Your task to perform on an android device: turn on wifi Image 0: 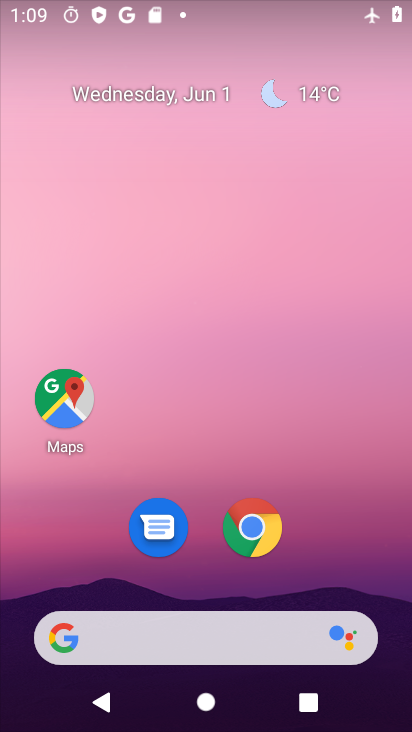
Step 0: drag from (206, 560) to (235, 121)
Your task to perform on an android device: turn on wifi Image 1: 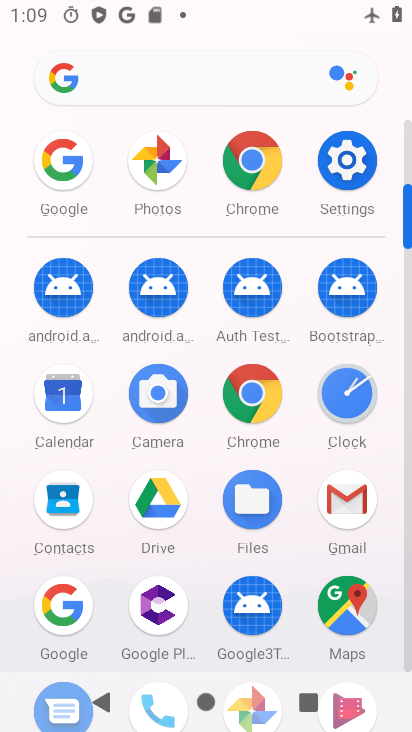
Step 1: click (340, 164)
Your task to perform on an android device: turn on wifi Image 2: 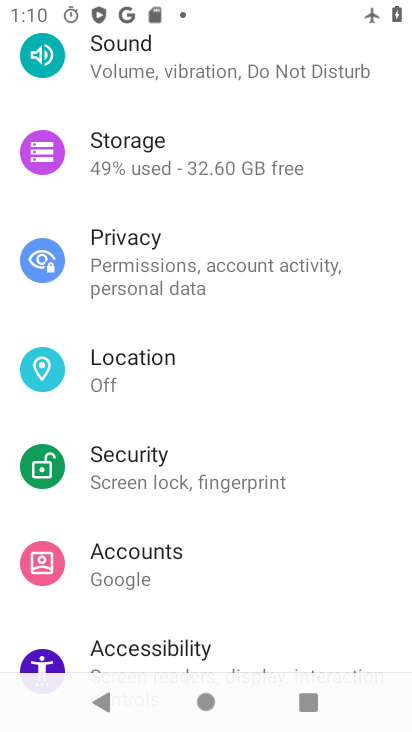
Step 2: drag from (116, 311) to (94, 597)
Your task to perform on an android device: turn on wifi Image 3: 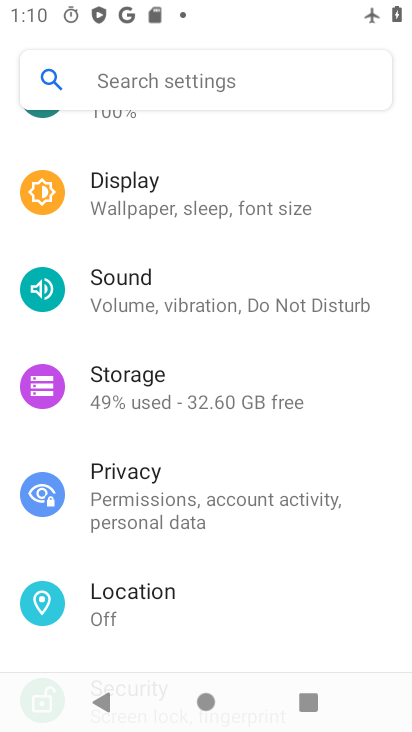
Step 3: drag from (155, 279) to (131, 571)
Your task to perform on an android device: turn on wifi Image 4: 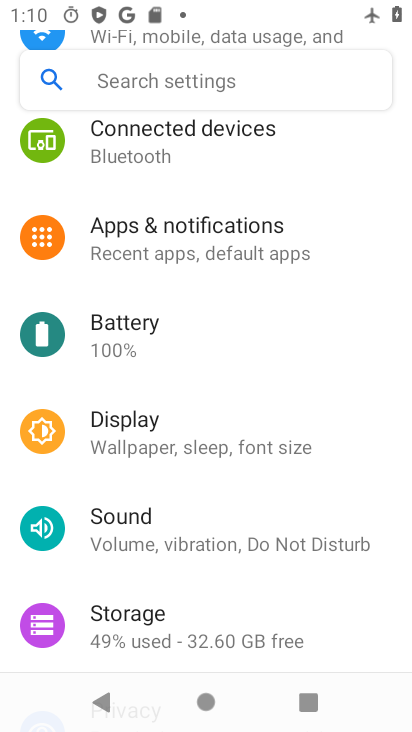
Step 4: drag from (184, 230) to (134, 647)
Your task to perform on an android device: turn on wifi Image 5: 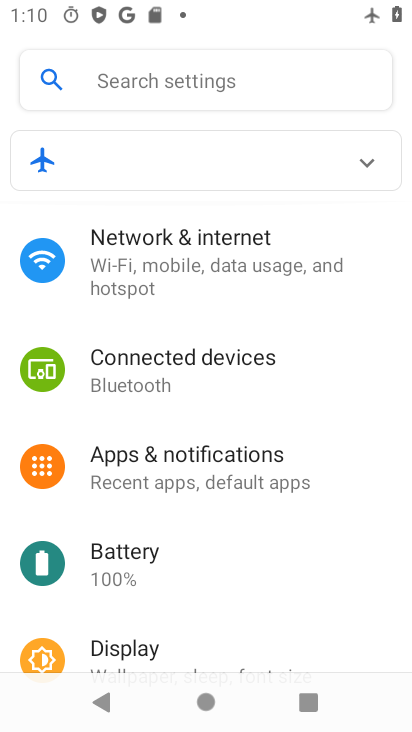
Step 5: drag from (188, 316) to (154, 614)
Your task to perform on an android device: turn on wifi Image 6: 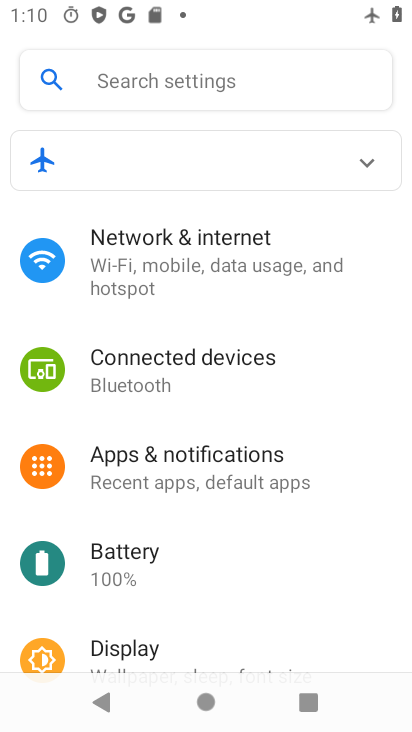
Step 6: click (229, 268)
Your task to perform on an android device: turn on wifi Image 7: 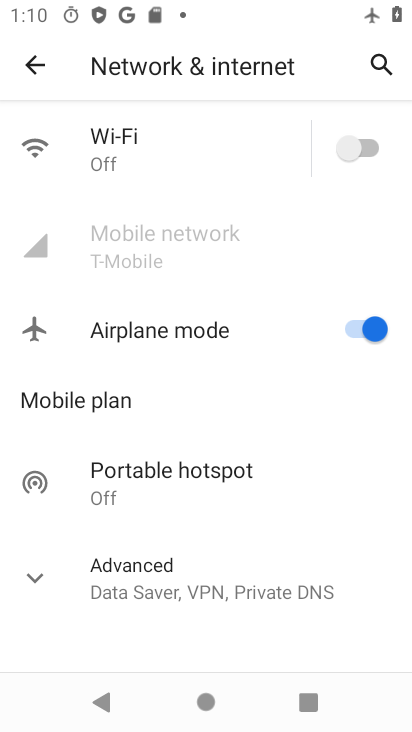
Step 7: click (356, 159)
Your task to perform on an android device: turn on wifi Image 8: 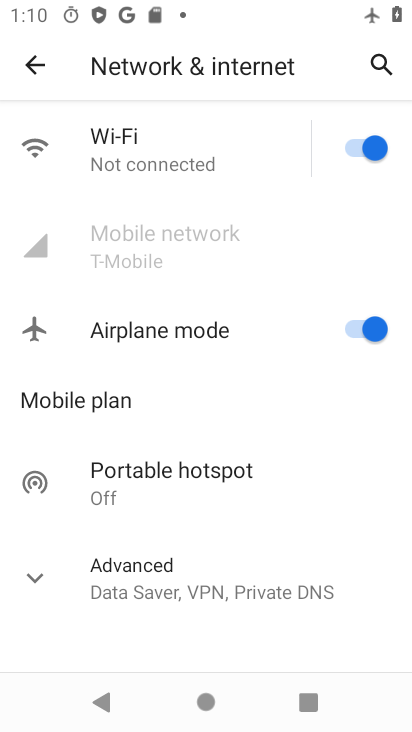
Step 8: task complete